Your task to perform on an android device: empty trash in google photos Image 0: 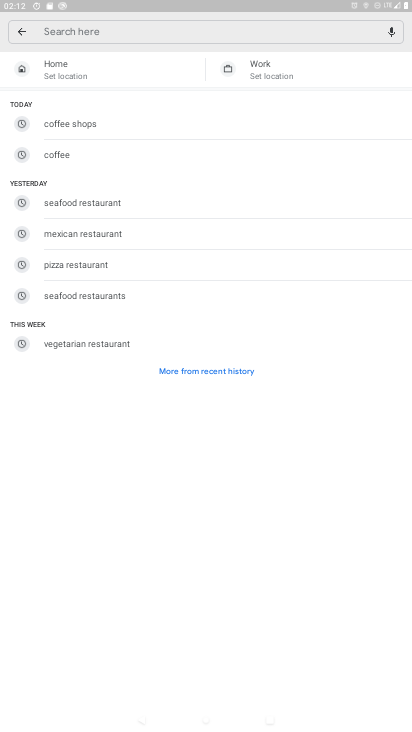
Step 0: press home button
Your task to perform on an android device: empty trash in google photos Image 1: 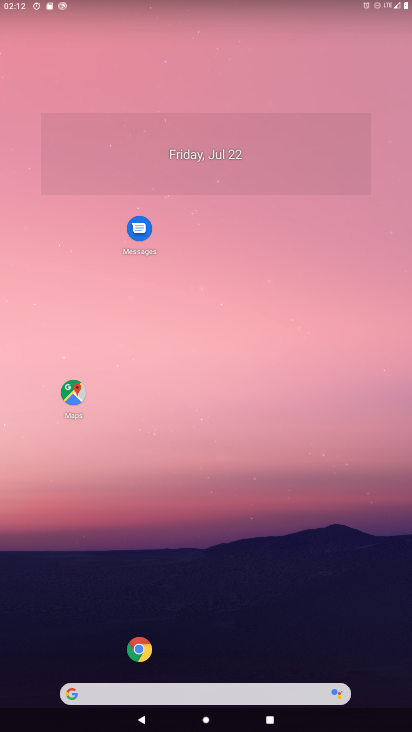
Step 1: drag from (83, 602) to (376, 101)
Your task to perform on an android device: empty trash in google photos Image 2: 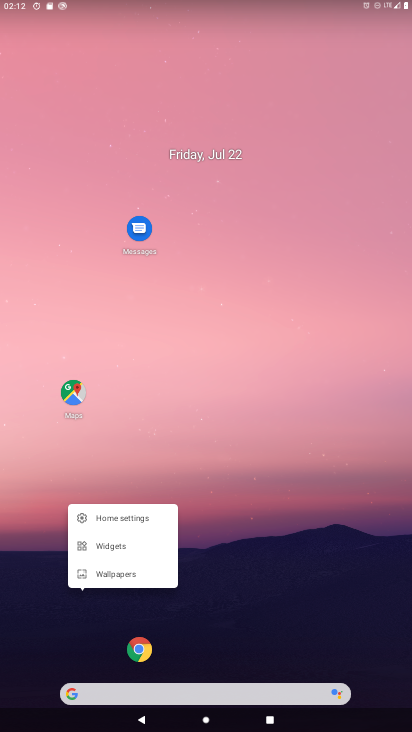
Step 2: drag from (60, 649) to (279, 53)
Your task to perform on an android device: empty trash in google photos Image 3: 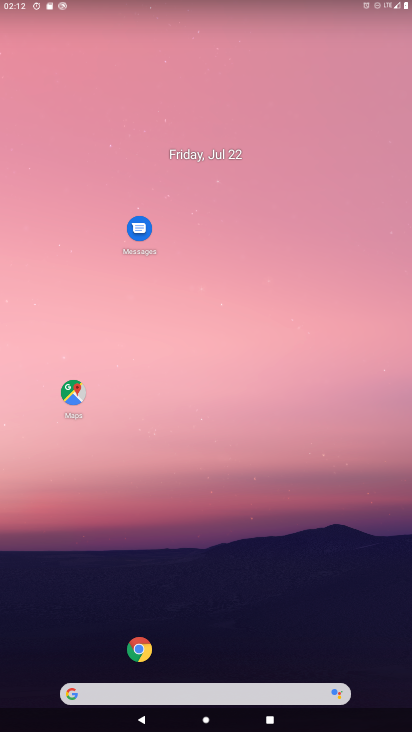
Step 3: drag from (72, 545) to (241, 129)
Your task to perform on an android device: empty trash in google photos Image 4: 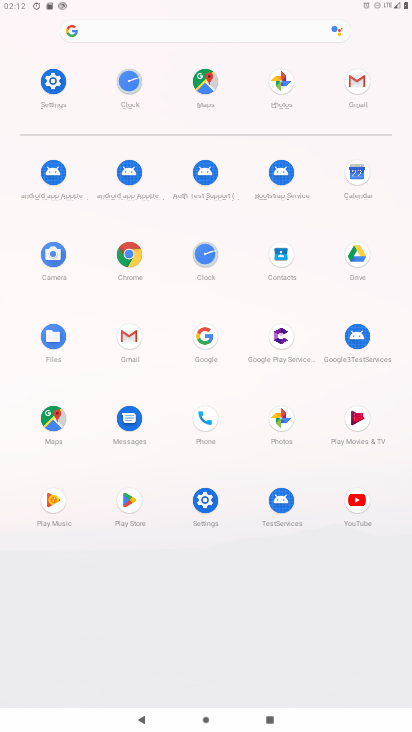
Step 4: click (279, 422)
Your task to perform on an android device: empty trash in google photos Image 5: 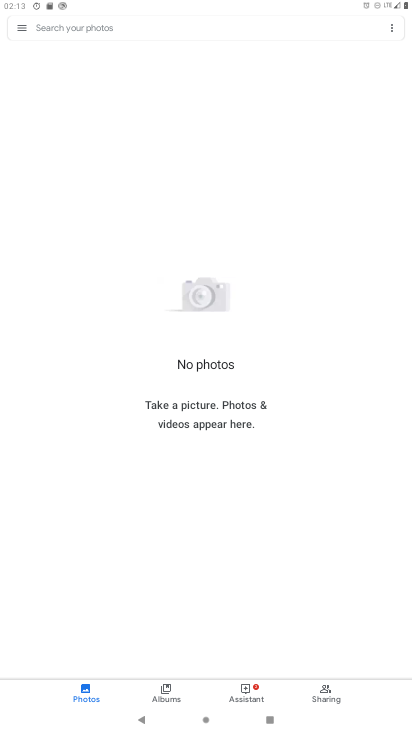
Step 5: click (24, 29)
Your task to perform on an android device: empty trash in google photos Image 6: 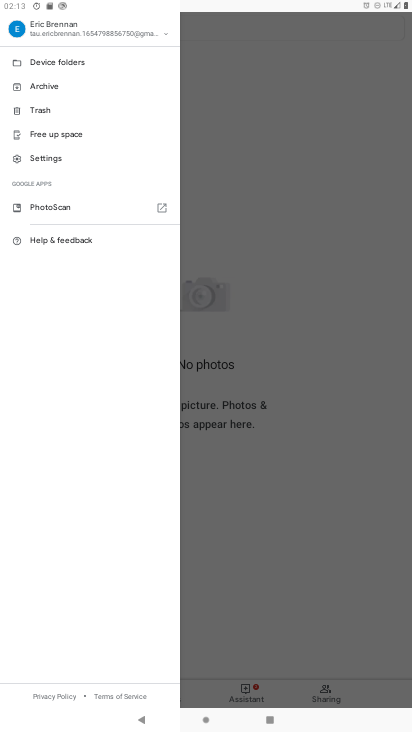
Step 6: click (45, 109)
Your task to perform on an android device: empty trash in google photos Image 7: 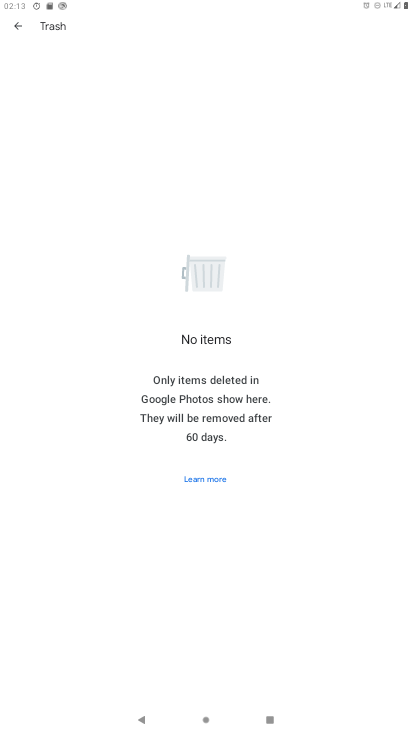
Step 7: task complete